Your task to perform on an android device: What's the weather going to be tomorrow? Image 0: 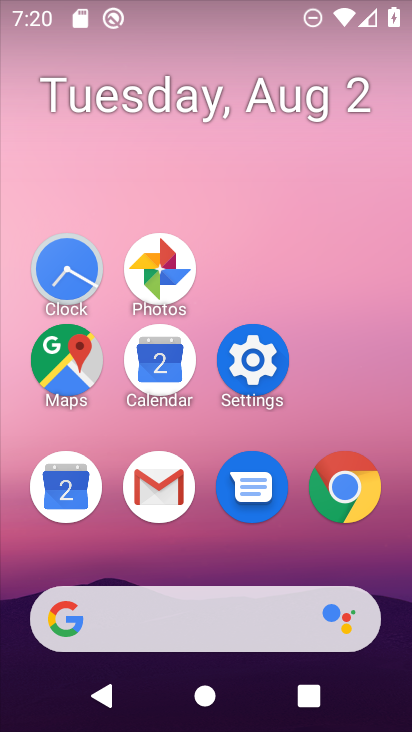
Step 0: click (171, 609)
Your task to perform on an android device: What's the weather going to be tomorrow? Image 1: 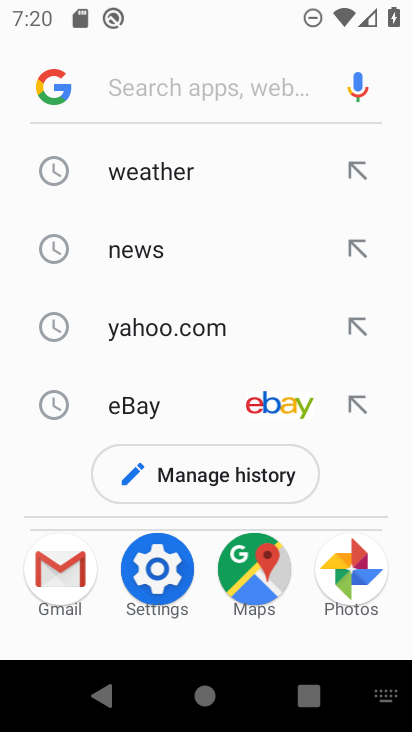
Step 1: click (153, 173)
Your task to perform on an android device: What's the weather going to be tomorrow? Image 2: 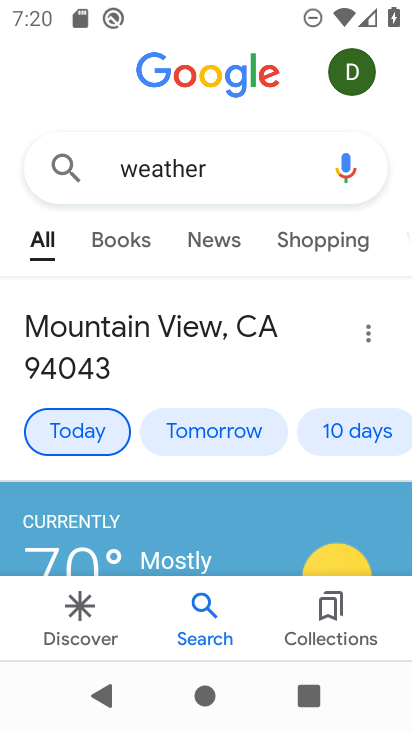
Step 2: click (206, 430)
Your task to perform on an android device: What's the weather going to be tomorrow? Image 3: 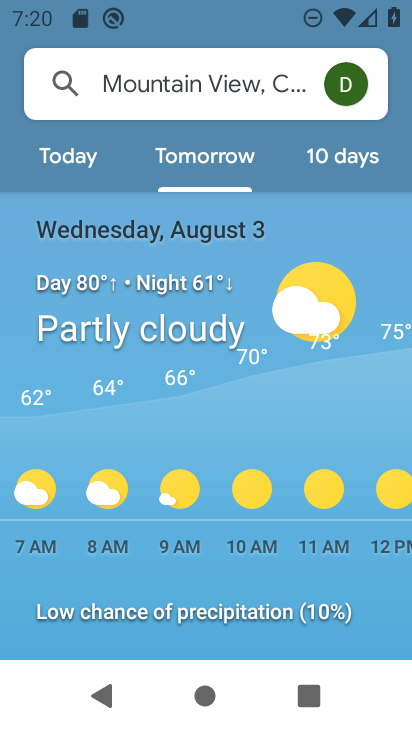
Step 3: task complete